Your task to perform on an android device: search for starred emails in the gmail app Image 0: 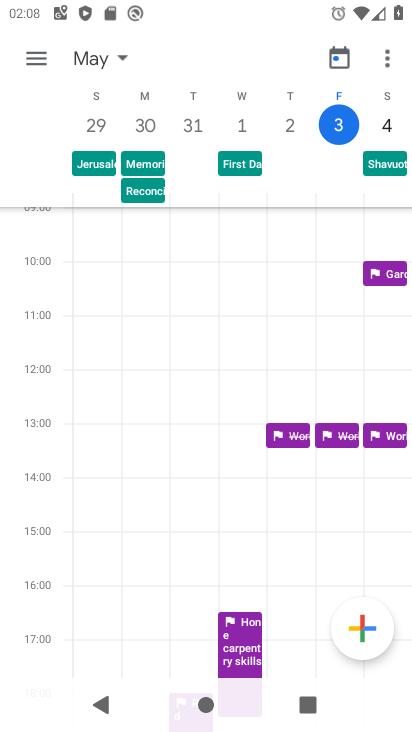
Step 0: press home button
Your task to perform on an android device: search for starred emails in the gmail app Image 1: 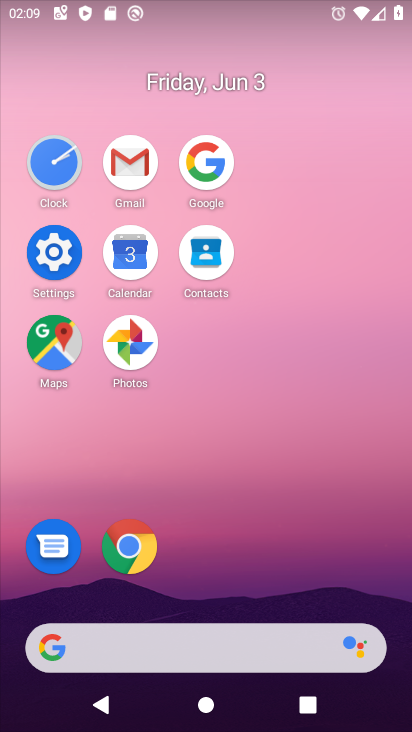
Step 1: click (131, 172)
Your task to perform on an android device: search for starred emails in the gmail app Image 2: 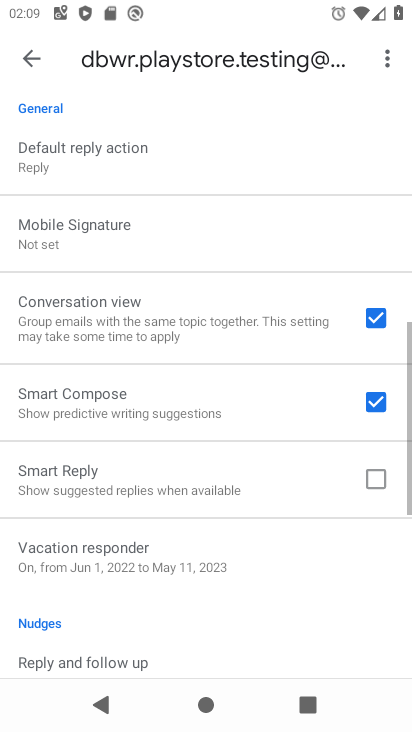
Step 2: click (29, 70)
Your task to perform on an android device: search for starred emails in the gmail app Image 3: 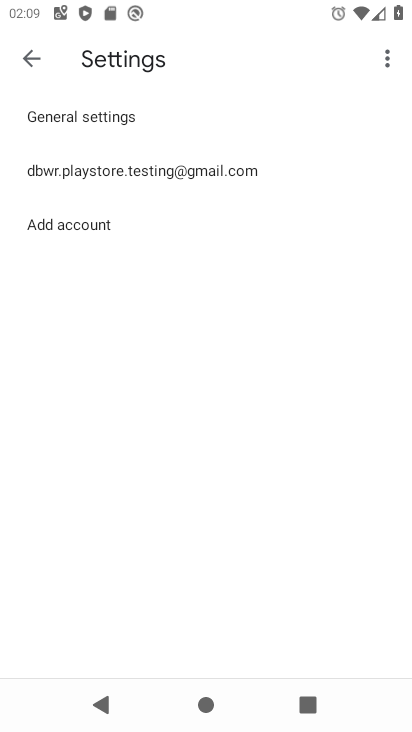
Step 3: click (29, 70)
Your task to perform on an android device: search for starred emails in the gmail app Image 4: 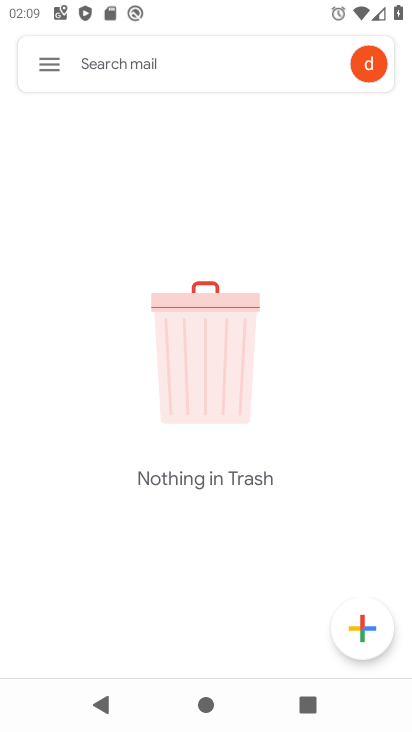
Step 4: click (29, 70)
Your task to perform on an android device: search for starred emails in the gmail app Image 5: 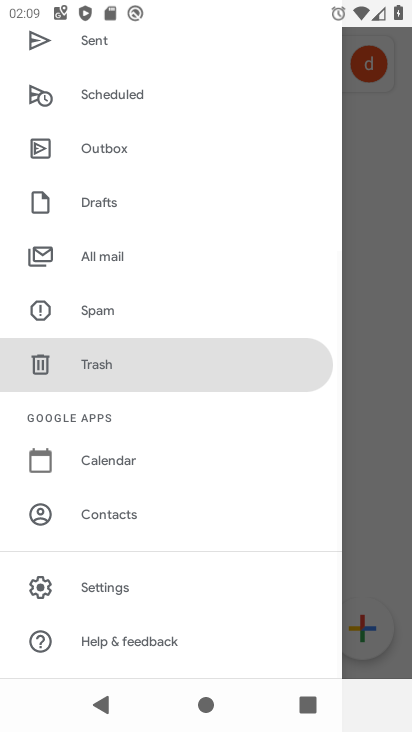
Step 5: drag from (206, 152) to (208, 485)
Your task to perform on an android device: search for starred emails in the gmail app Image 6: 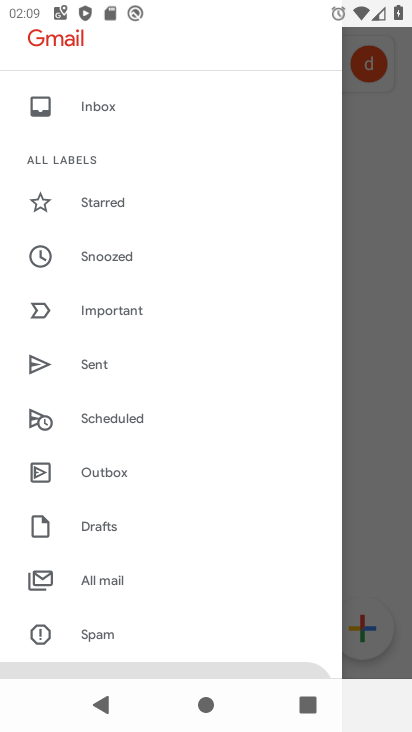
Step 6: click (140, 195)
Your task to perform on an android device: search for starred emails in the gmail app Image 7: 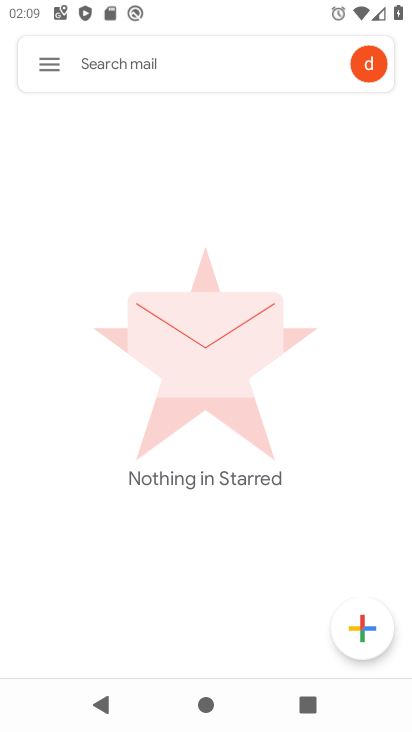
Step 7: task complete